Your task to perform on an android device: open chrome and create a bookmark for the current page Image 0: 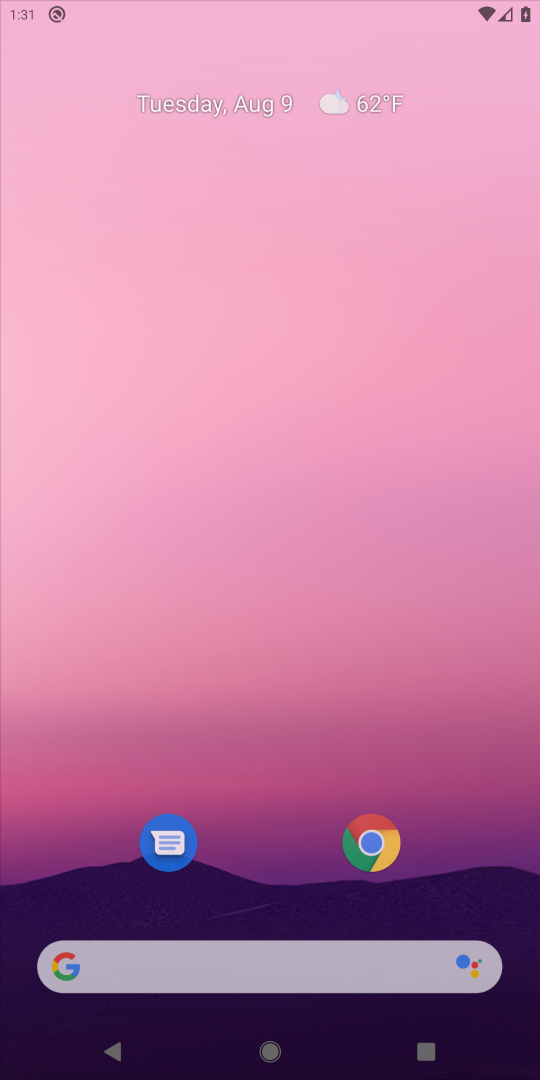
Step 0: press home button
Your task to perform on an android device: open chrome and create a bookmark for the current page Image 1: 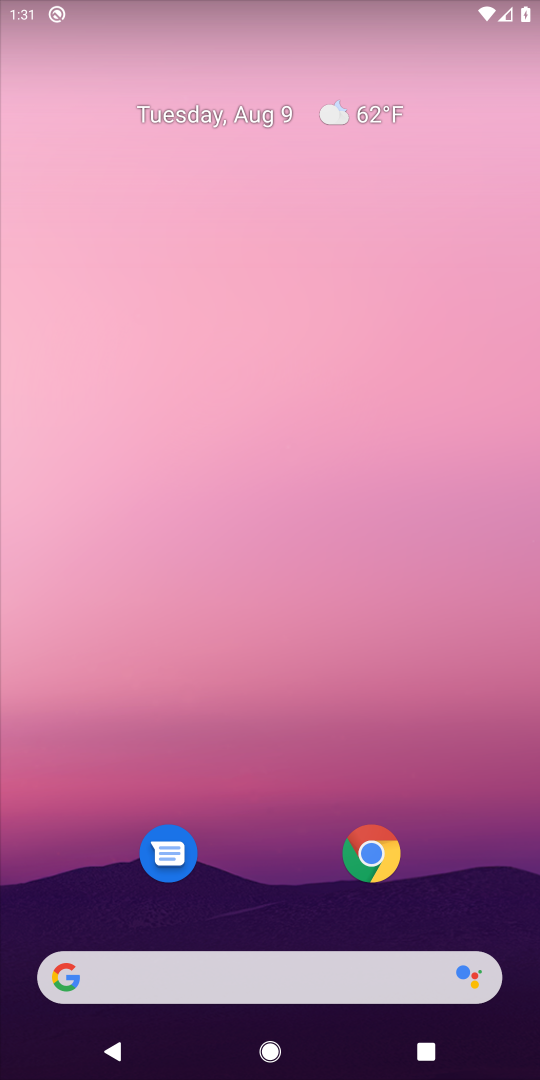
Step 1: press home button
Your task to perform on an android device: open chrome and create a bookmark for the current page Image 2: 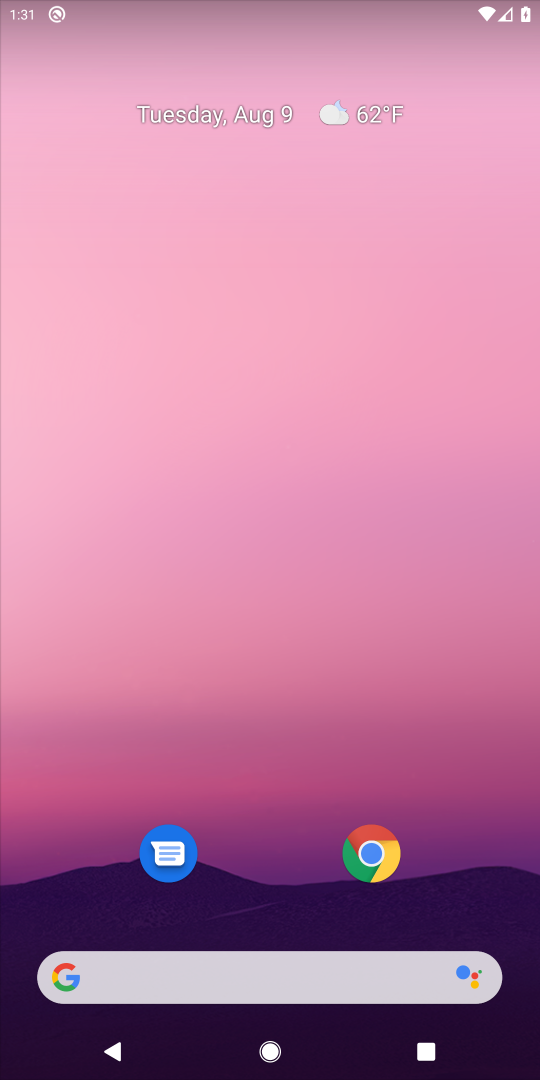
Step 2: click (373, 842)
Your task to perform on an android device: open chrome and create a bookmark for the current page Image 3: 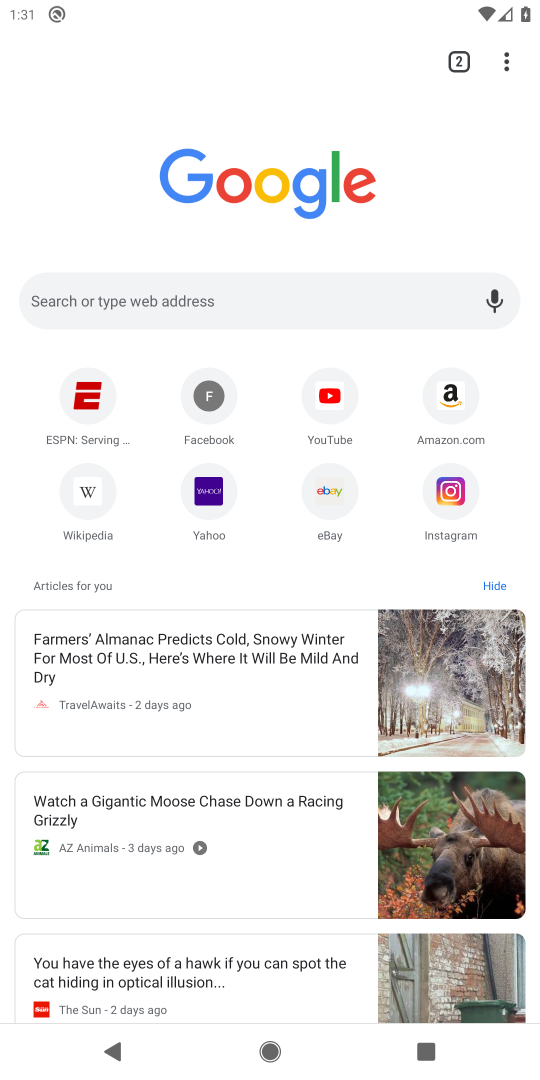
Step 3: drag from (498, 56) to (320, 65)
Your task to perform on an android device: open chrome and create a bookmark for the current page Image 4: 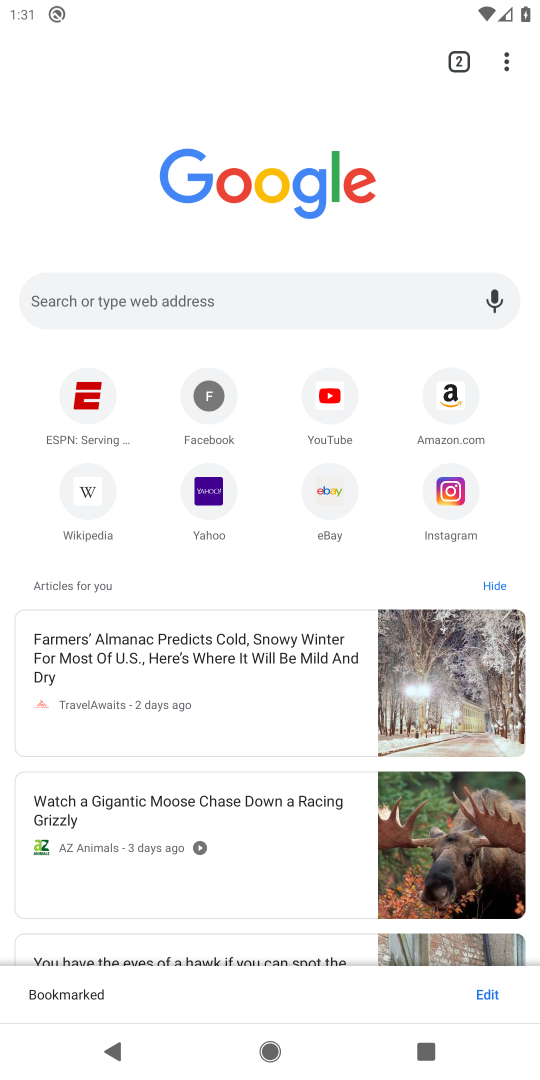
Step 4: click (508, 53)
Your task to perform on an android device: open chrome and create a bookmark for the current page Image 5: 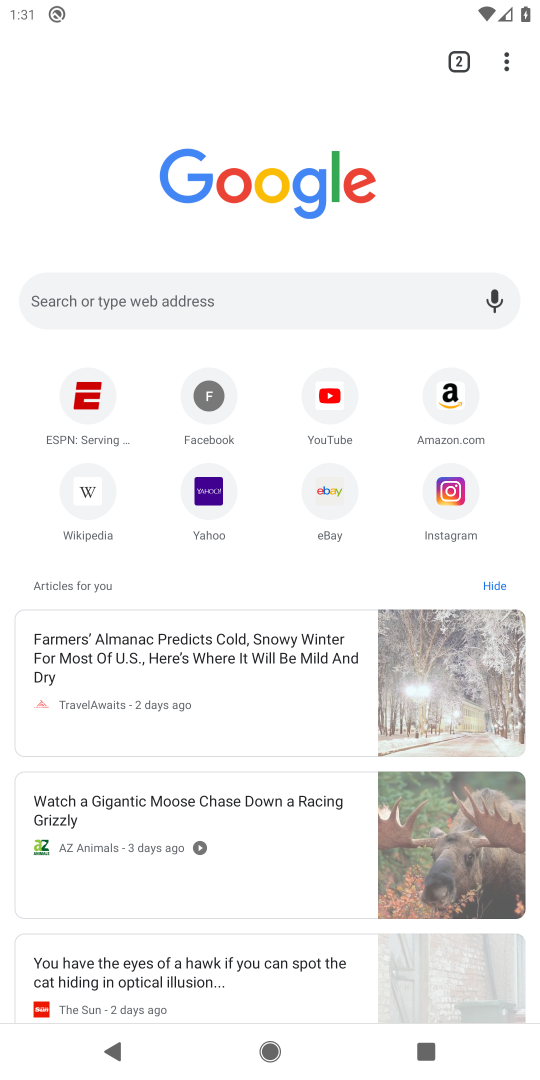
Step 5: click (499, 57)
Your task to perform on an android device: open chrome and create a bookmark for the current page Image 6: 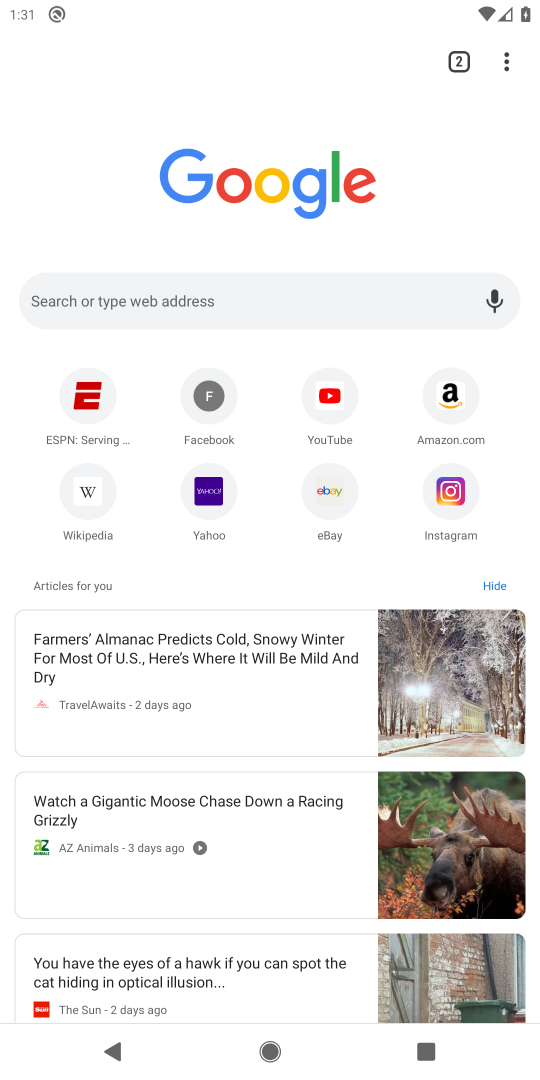
Step 6: task complete